Your task to perform on an android device: What's the weather? Image 0: 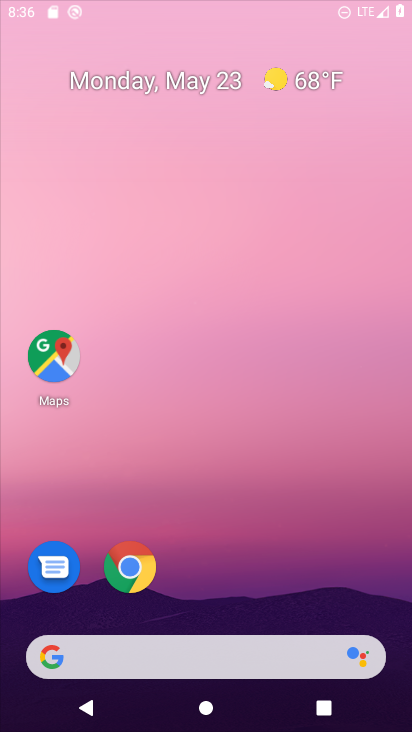
Step 0: drag from (242, 262) to (274, 74)
Your task to perform on an android device: What's the weather? Image 1: 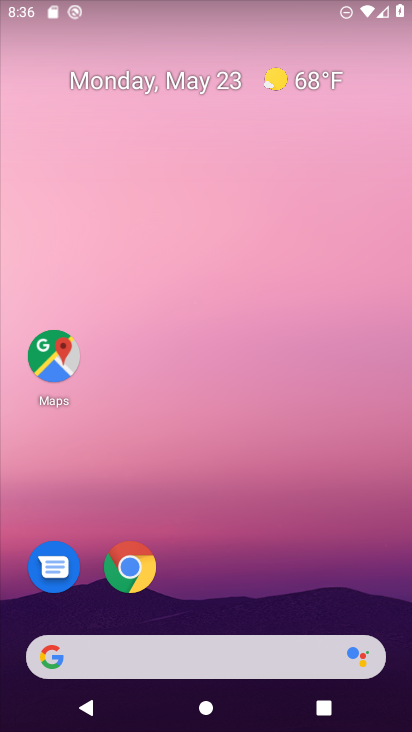
Step 1: click (203, 530)
Your task to perform on an android device: What's the weather? Image 2: 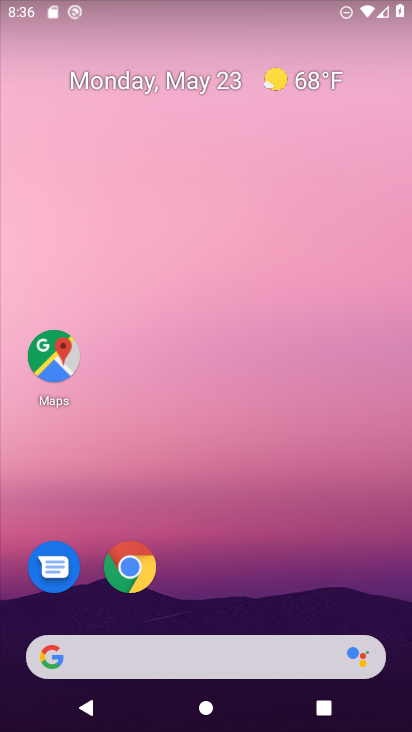
Step 2: drag from (207, 619) to (295, 4)
Your task to perform on an android device: What's the weather? Image 3: 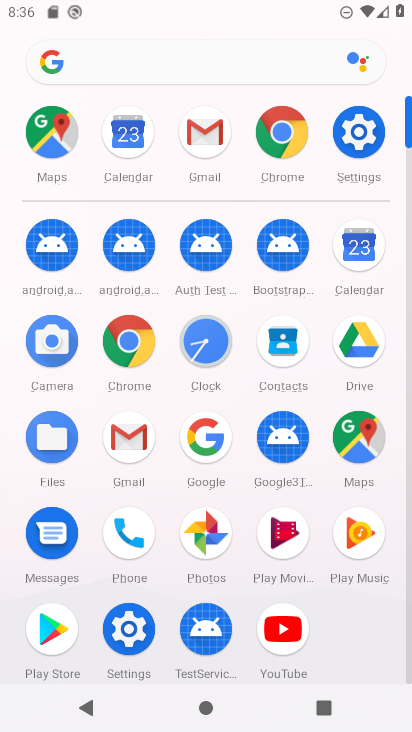
Step 3: click (217, 60)
Your task to perform on an android device: What's the weather? Image 4: 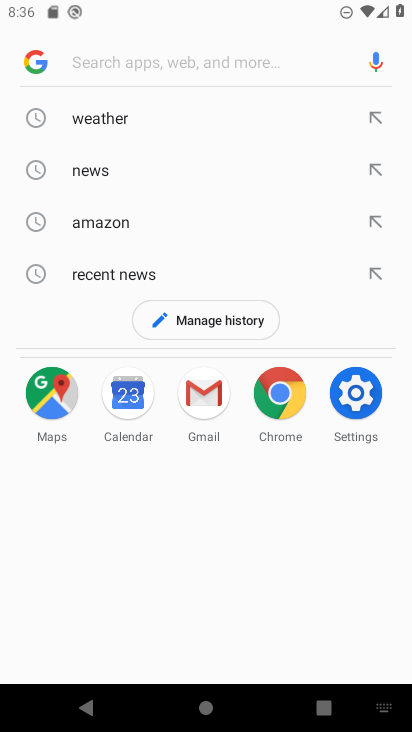
Step 4: type "What's the weather?"
Your task to perform on an android device: What's the weather? Image 5: 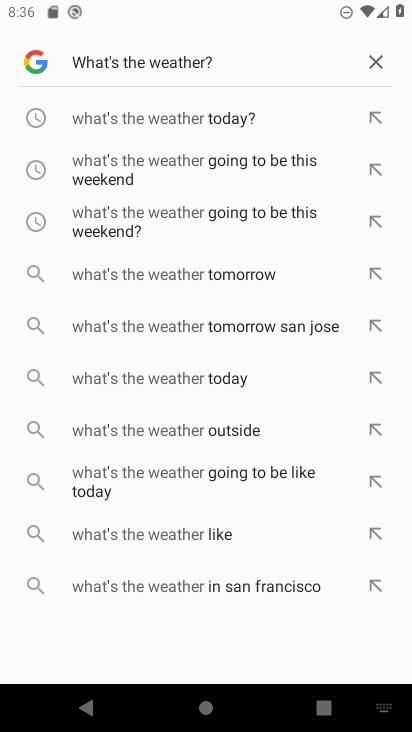
Step 5: click (145, 113)
Your task to perform on an android device: What's the weather? Image 6: 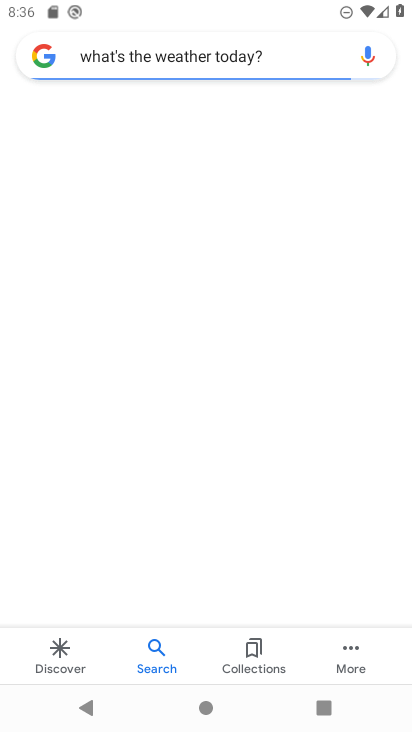
Step 6: task complete